Your task to perform on an android device: make emails show in primary in the gmail app Image 0: 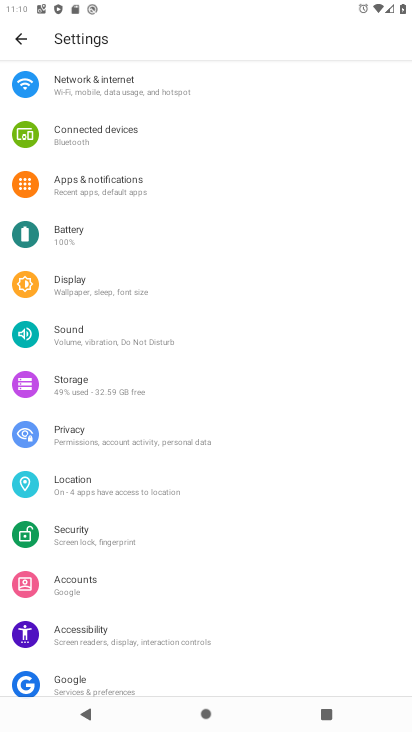
Step 0: press home button
Your task to perform on an android device: make emails show in primary in the gmail app Image 1: 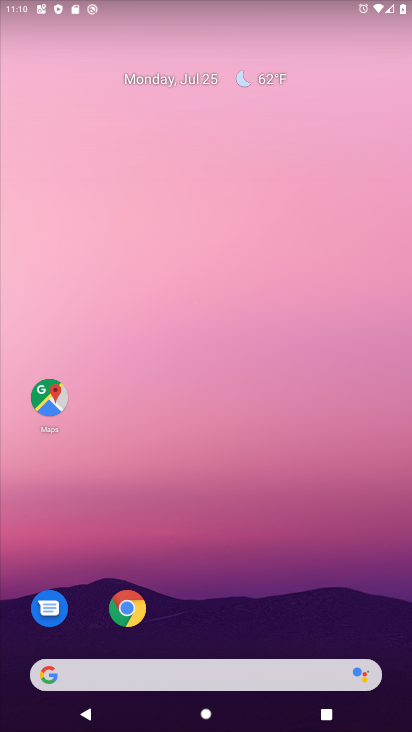
Step 1: drag from (204, 621) to (182, 248)
Your task to perform on an android device: make emails show in primary in the gmail app Image 2: 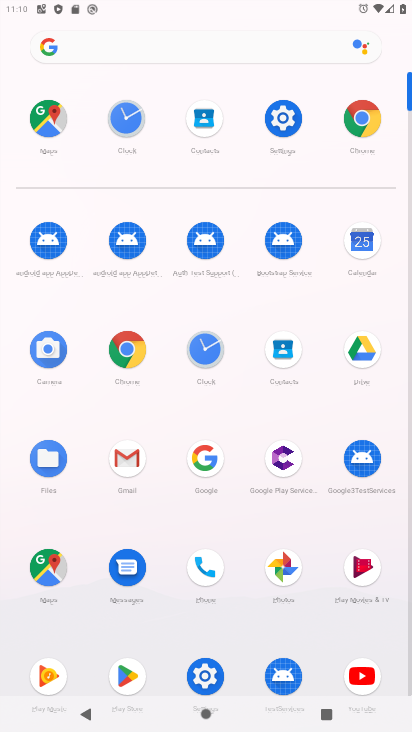
Step 2: click (132, 451)
Your task to perform on an android device: make emails show in primary in the gmail app Image 3: 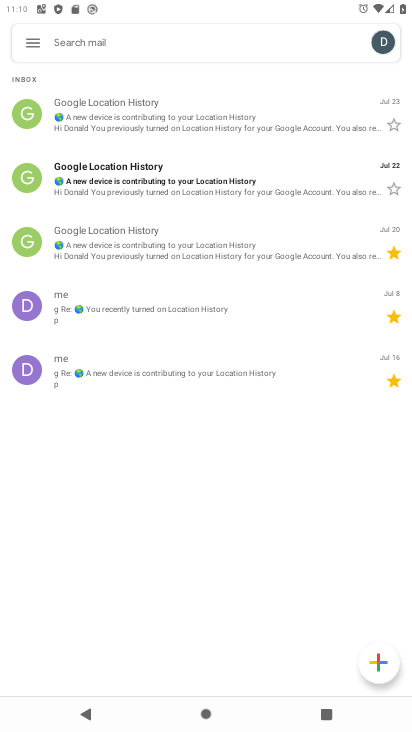
Step 3: click (31, 40)
Your task to perform on an android device: make emails show in primary in the gmail app Image 4: 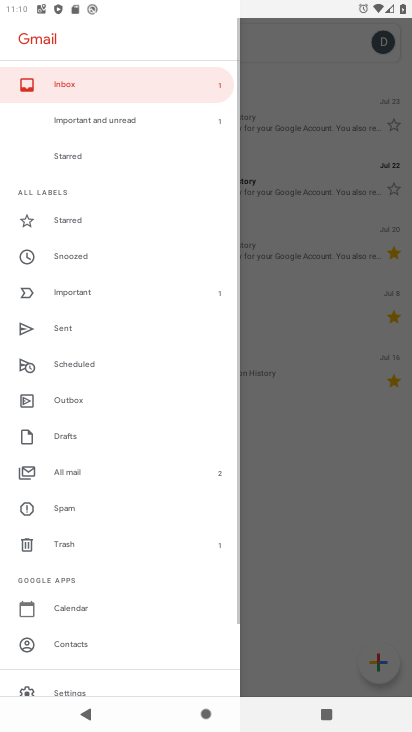
Step 4: drag from (108, 572) to (119, 181)
Your task to perform on an android device: make emails show in primary in the gmail app Image 5: 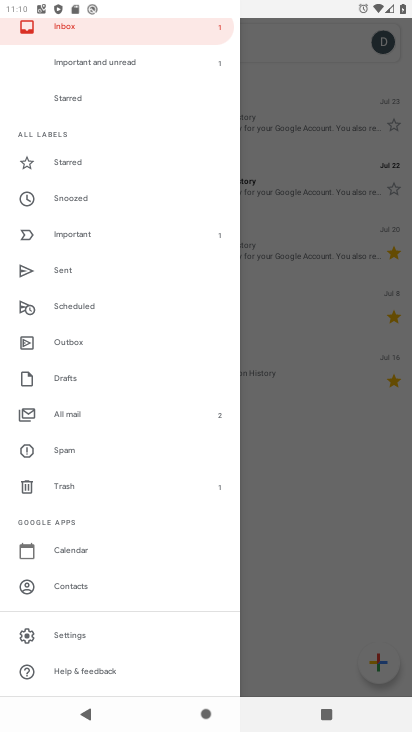
Step 5: click (70, 642)
Your task to perform on an android device: make emails show in primary in the gmail app Image 6: 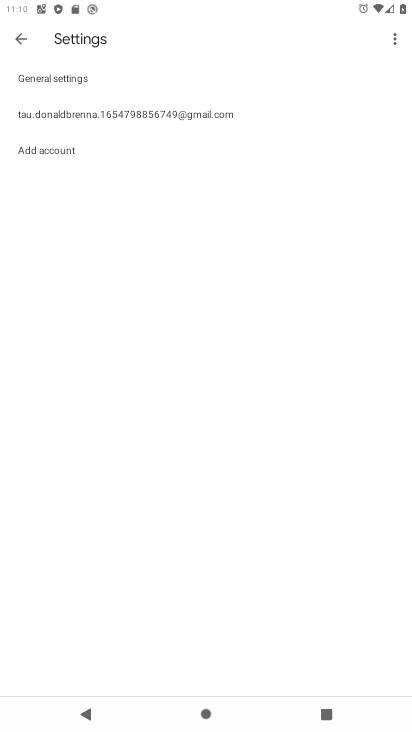
Step 6: click (115, 115)
Your task to perform on an android device: make emails show in primary in the gmail app Image 7: 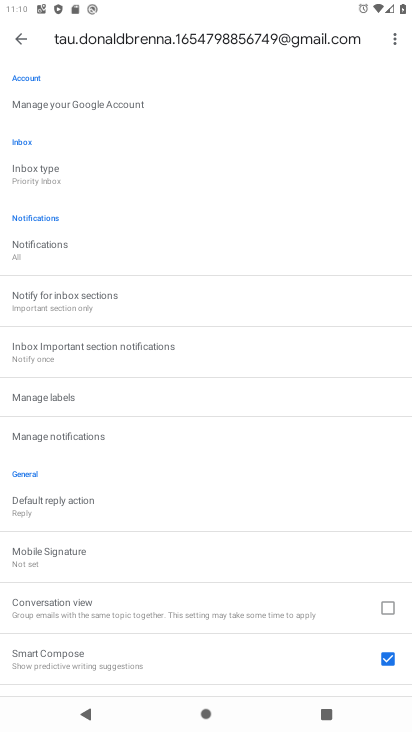
Step 7: click (54, 179)
Your task to perform on an android device: make emails show in primary in the gmail app Image 8: 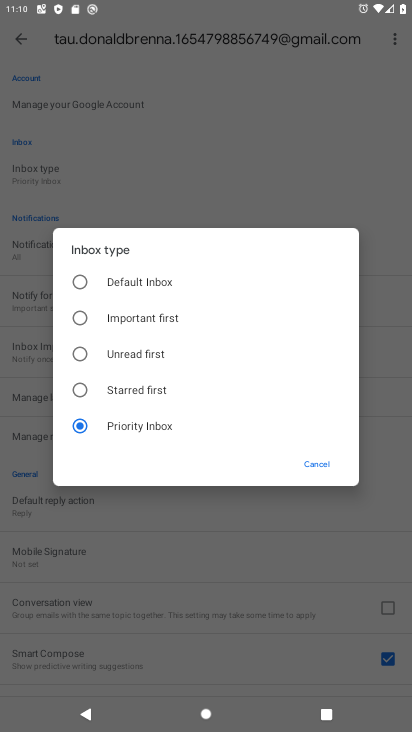
Step 8: click (102, 282)
Your task to perform on an android device: make emails show in primary in the gmail app Image 9: 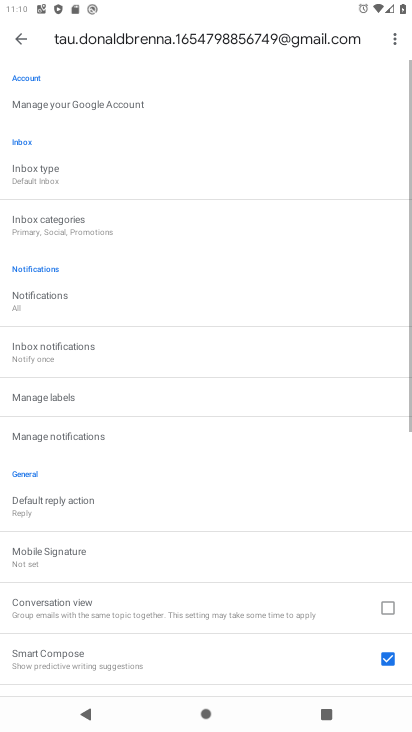
Step 9: click (78, 225)
Your task to perform on an android device: make emails show in primary in the gmail app Image 10: 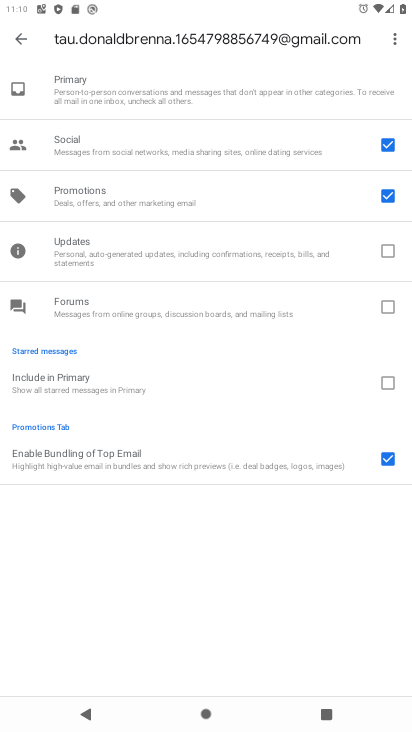
Step 10: click (371, 189)
Your task to perform on an android device: make emails show in primary in the gmail app Image 11: 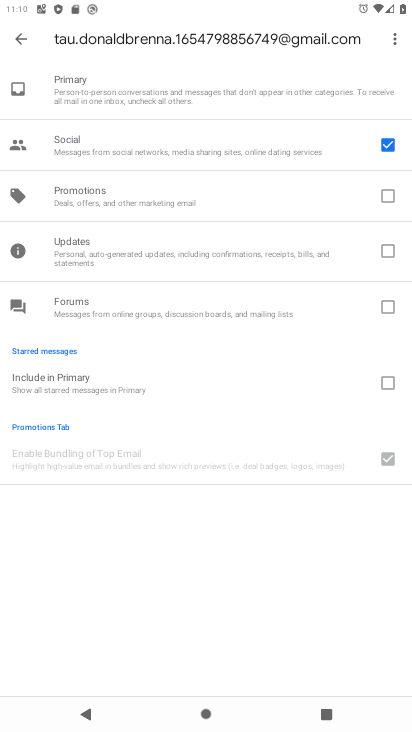
Step 11: click (379, 139)
Your task to perform on an android device: make emails show in primary in the gmail app Image 12: 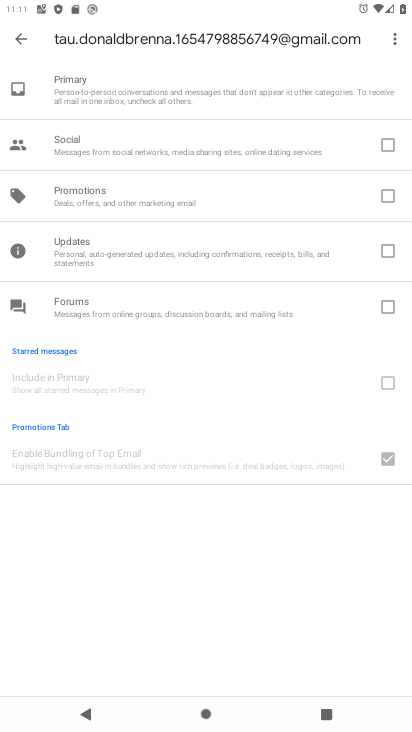
Step 12: task complete